Your task to perform on an android device: install app "Yahoo Mail" Image 0: 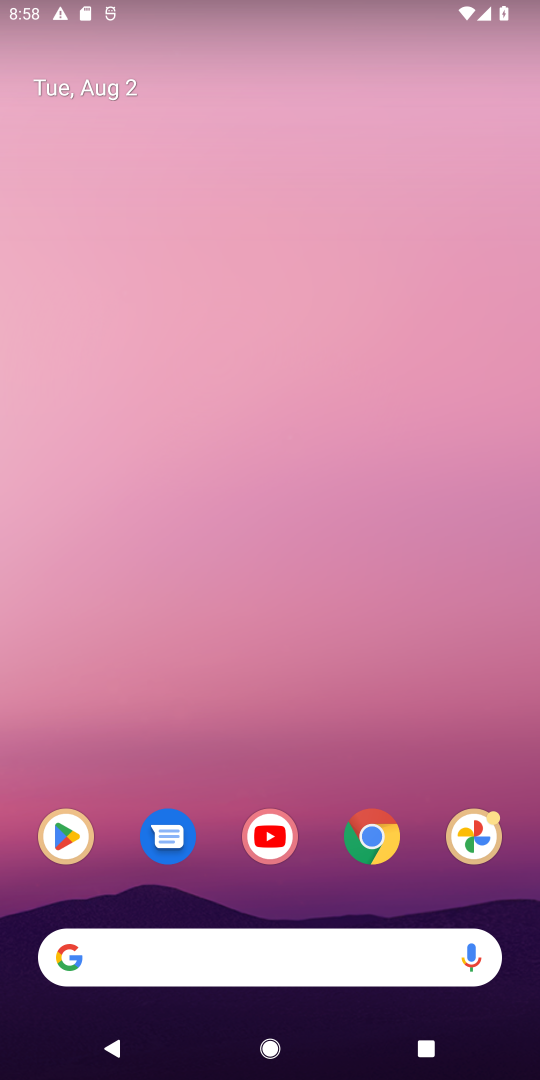
Step 0: drag from (432, 855) to (191, 72)
Your task to perform on an android device: install app "Yahoo Mail" Image 1: 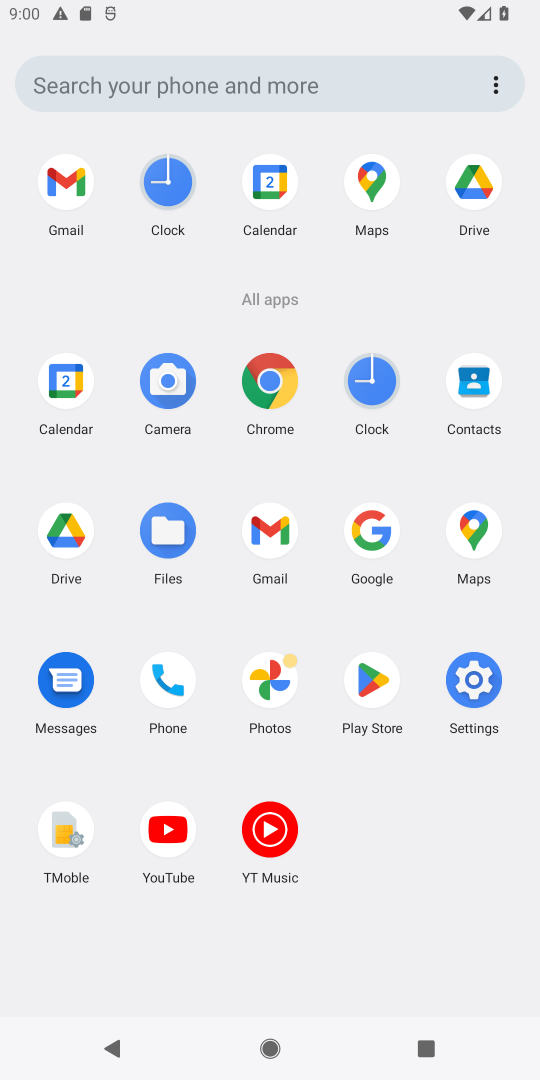
Step 1: click (357, 700)
Your task to perform on an android device: install app "Yahoo Mail" Image 2: 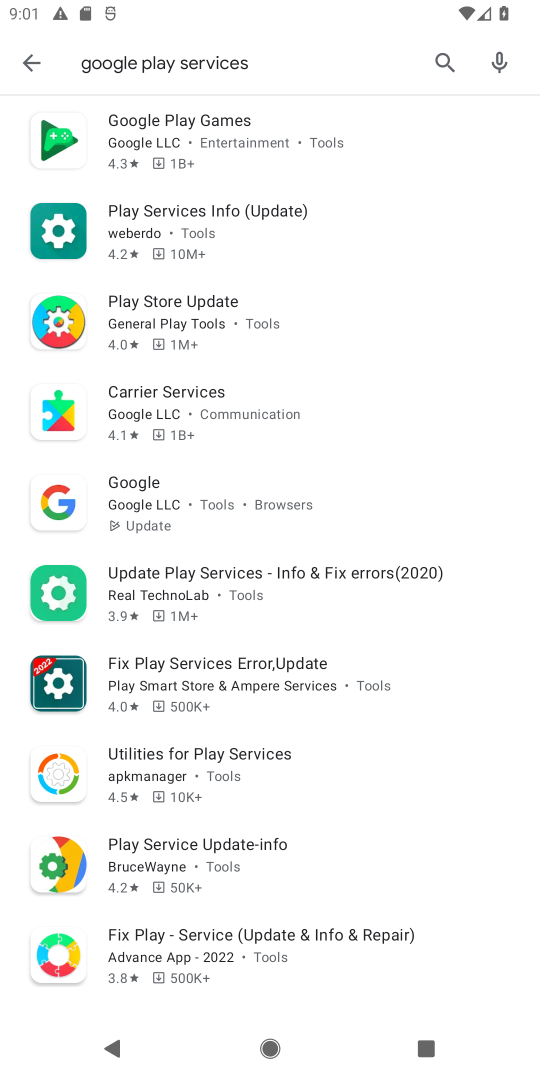
Step 2: press back button
Your task to perform on an android device: install app "Yahoo Mail" Image 3: 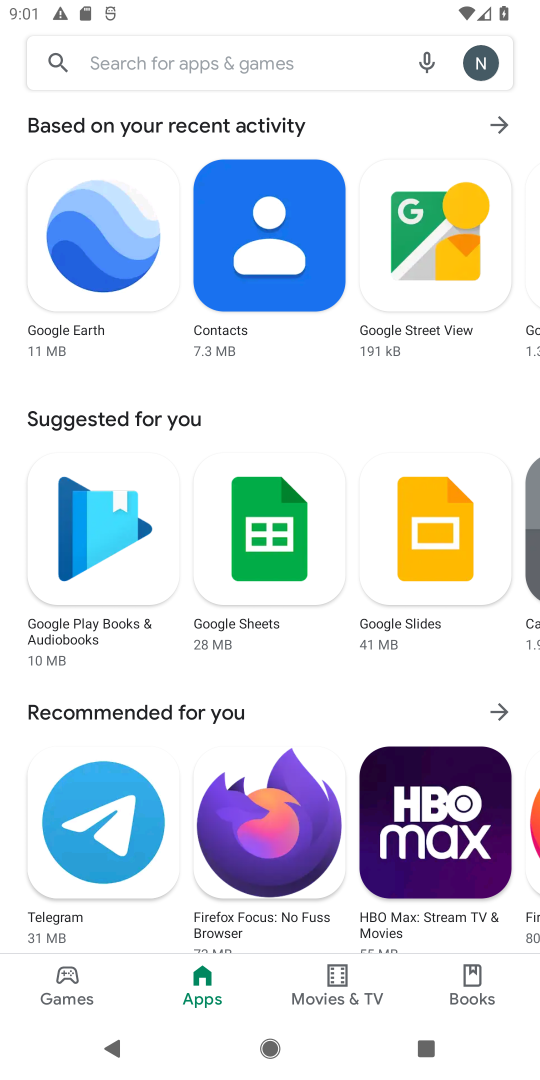
Step 3: click (156, 50)
Your task to perform on an android device: install app "Yahoo Mail" Image 4: 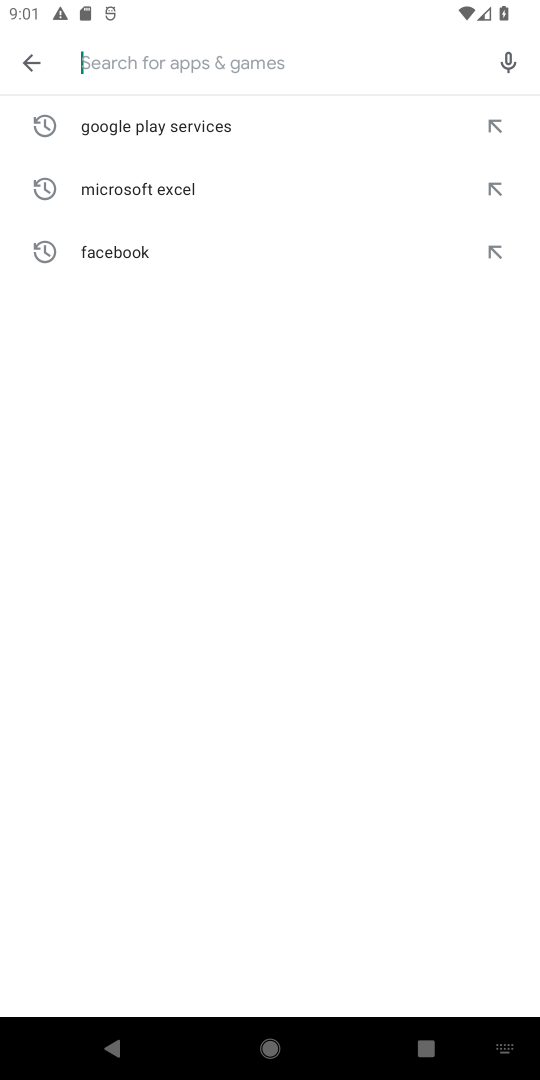
Step 4: type "Yahoo Mail"
Your task to perform on an android device: install app "Yahoo Mail" Image 5: 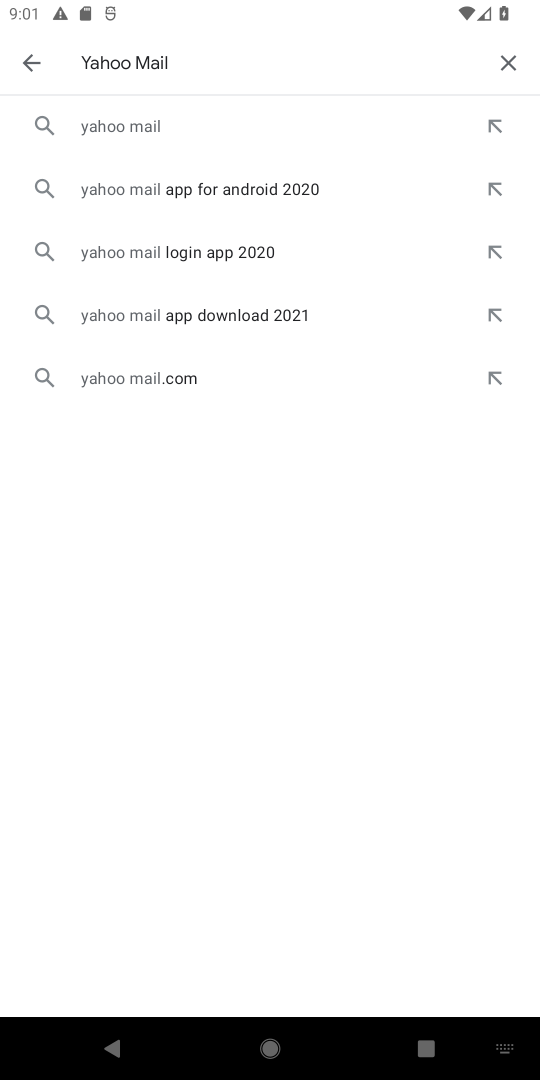
Step 5: click (152, 148)
Your task to perform on an android device: install app "Yahoo Mail" Image 6: 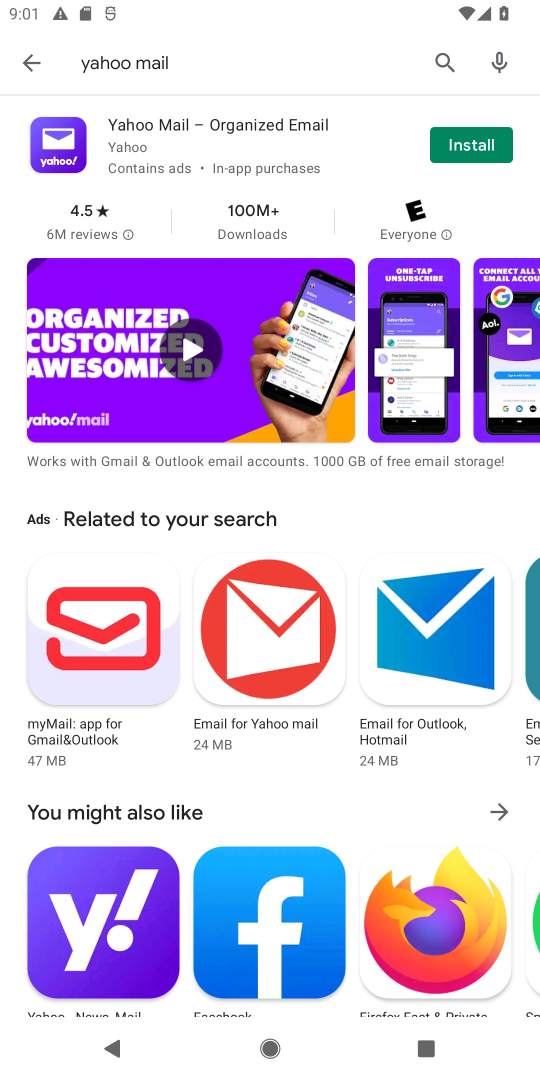
Step 6: click (480, 143)
Your task to perform on an android device: install app "Yahoo Mail" Image 7: 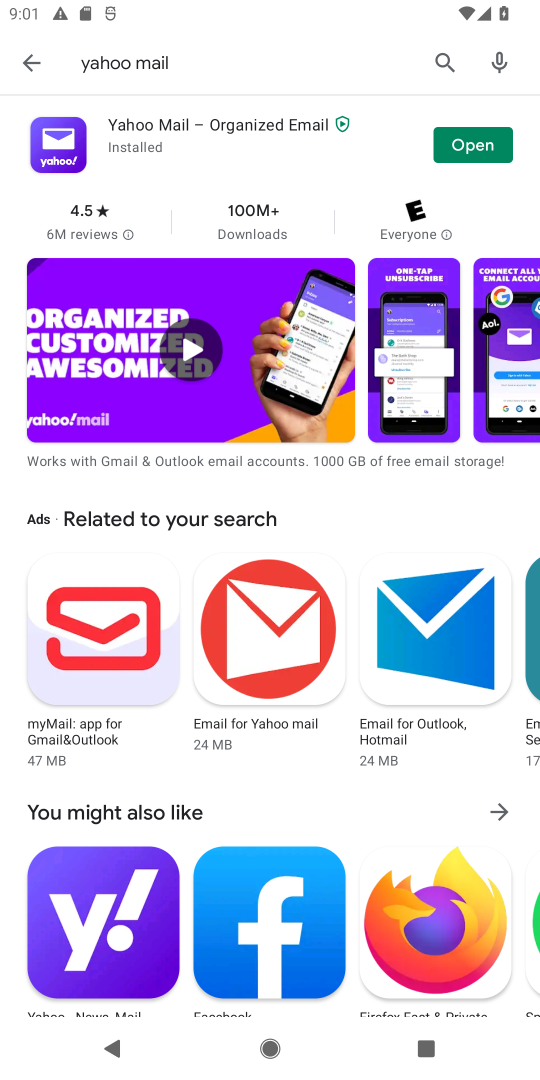
Step 7: task complete